Your task to perform on an android device: Open display settings Image 0: 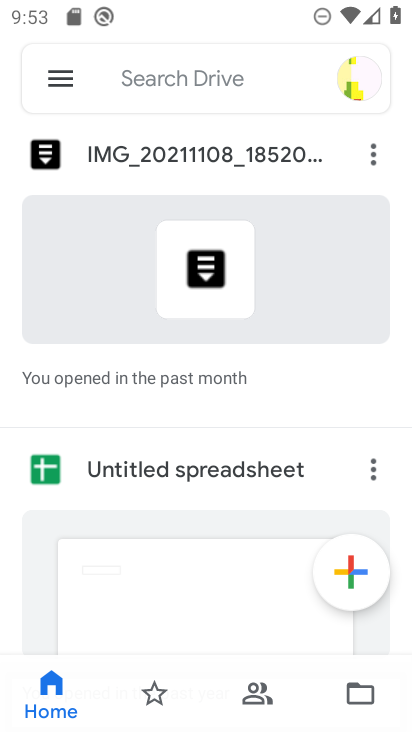
Step 0: press back button
Your task to perform on an android device: Open display settings Image 1: 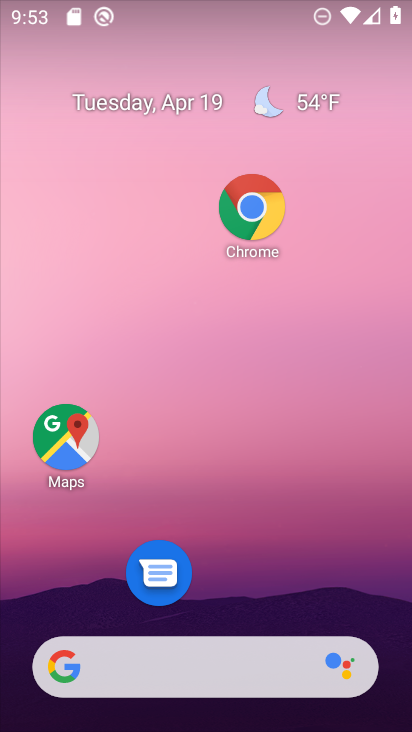
Step 1: drag from (183, 634) to (267, 254)
Your task to perform on an android device: Open display settings Image 2: 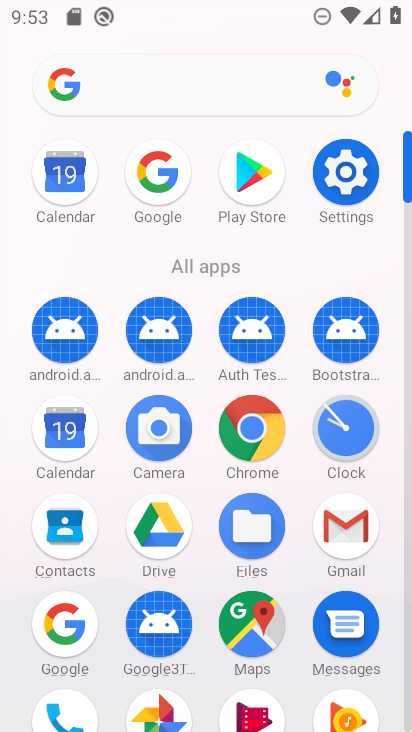
Step 2: click (355, 168)
Your task to perform on an android device: Open display settings Image 3: 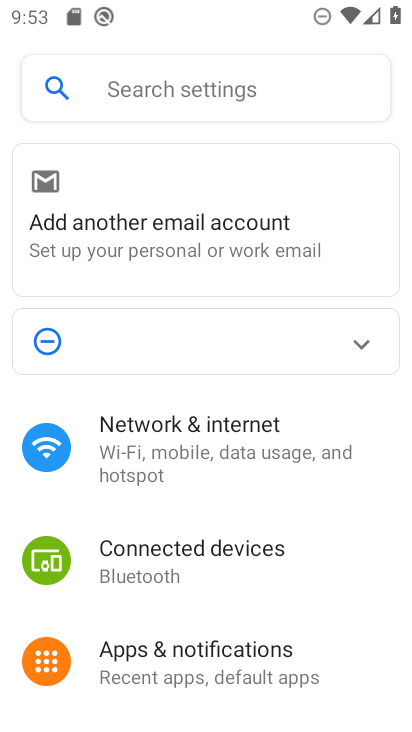
Step 3: drag from (229, 475) to (229, 165)
Your task to perform on an android device: Open display settings Image 4: 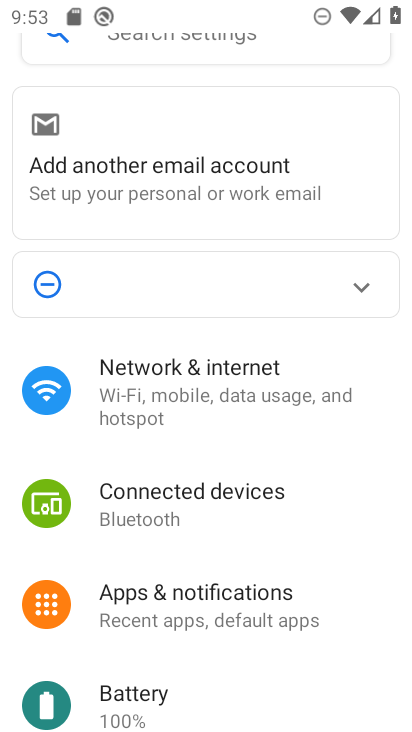
Step 4: drag from (188, 678) to (247, 255)
Your task to perform on an android device: Open display settings Image 5: 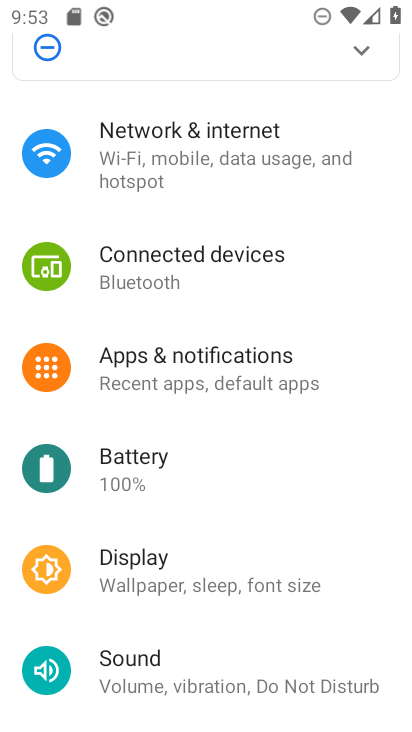
Step 5: click (161, 580)
Your task to perform on an android device: Open display settings Image 6: 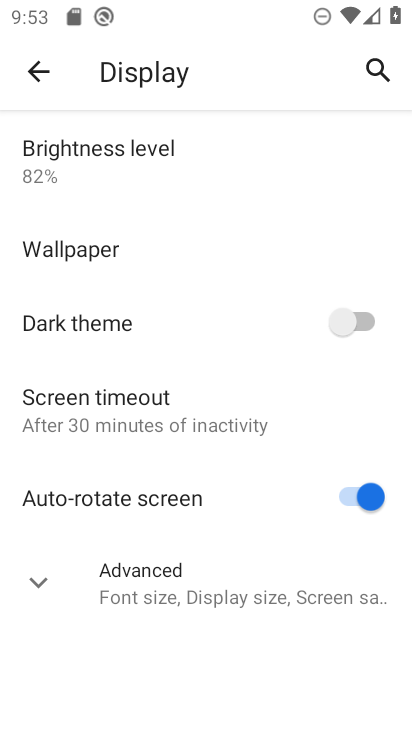
Step 6: click (161, 580)
Your task to perform on an android device: Open display settings Image 7: 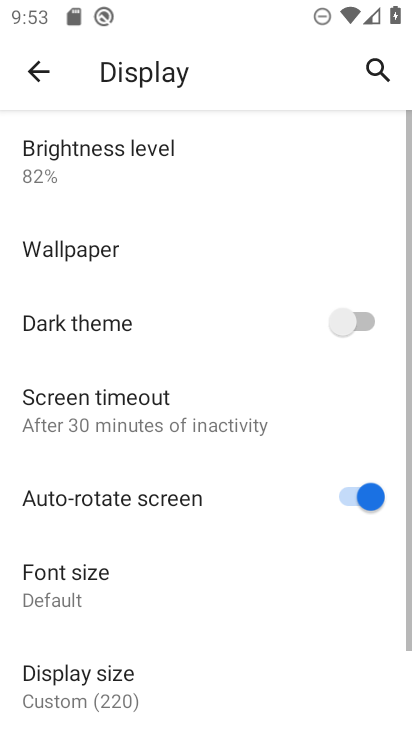
Step 7: task complete